Your task to perform on an android device: Open settings Image 0: 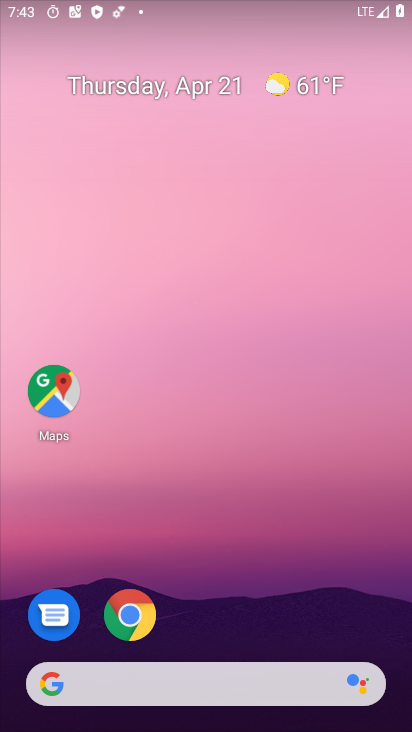
Step 0: drag from (171, 574) to (218, 66)
Your task to perform on an android device: Open settings Image 1: 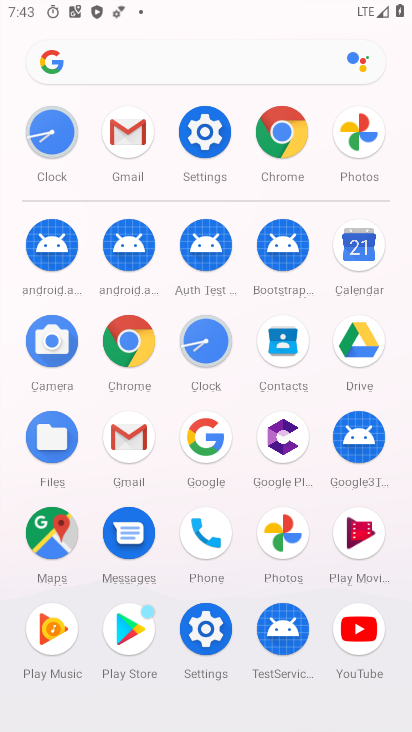
Step 1: click (198, 119)
Your task to perform on an android device: Open settings Image 2: 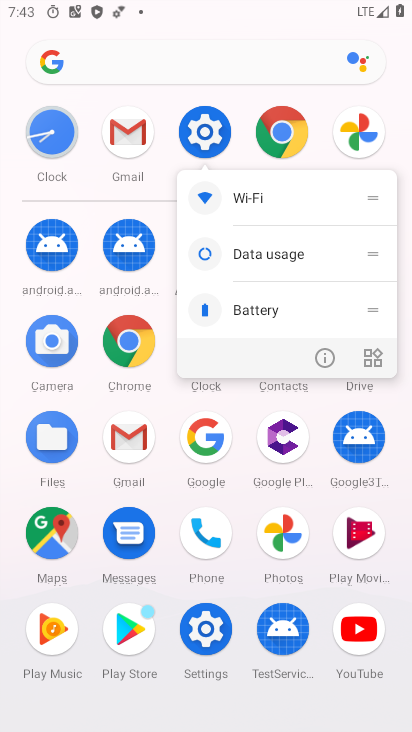
Step 2: click (324, 358)
Your task to perform on an android device: Open settings Image 3: 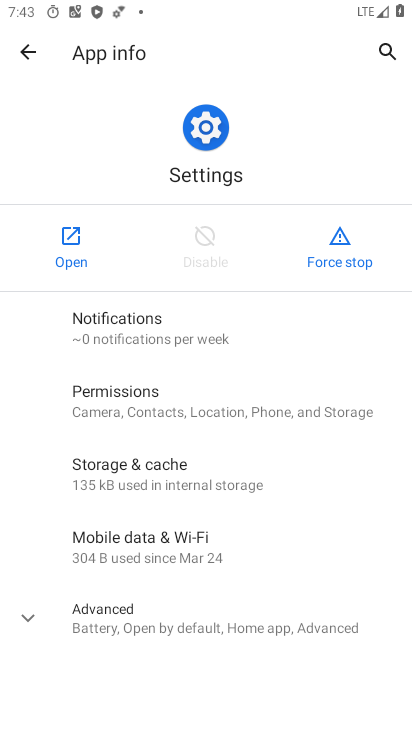
Step 3: click (70, 249)
Your task to perform on an android device: Open settings Image 4: 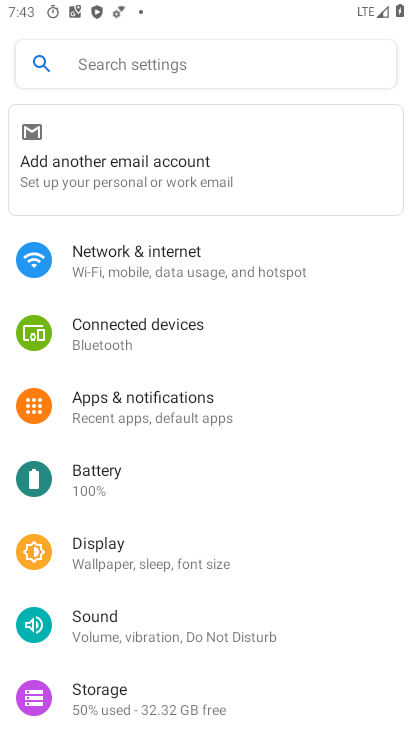
Step 4: task complete